Your task to perform on an android device: Open battery settings Image 0: 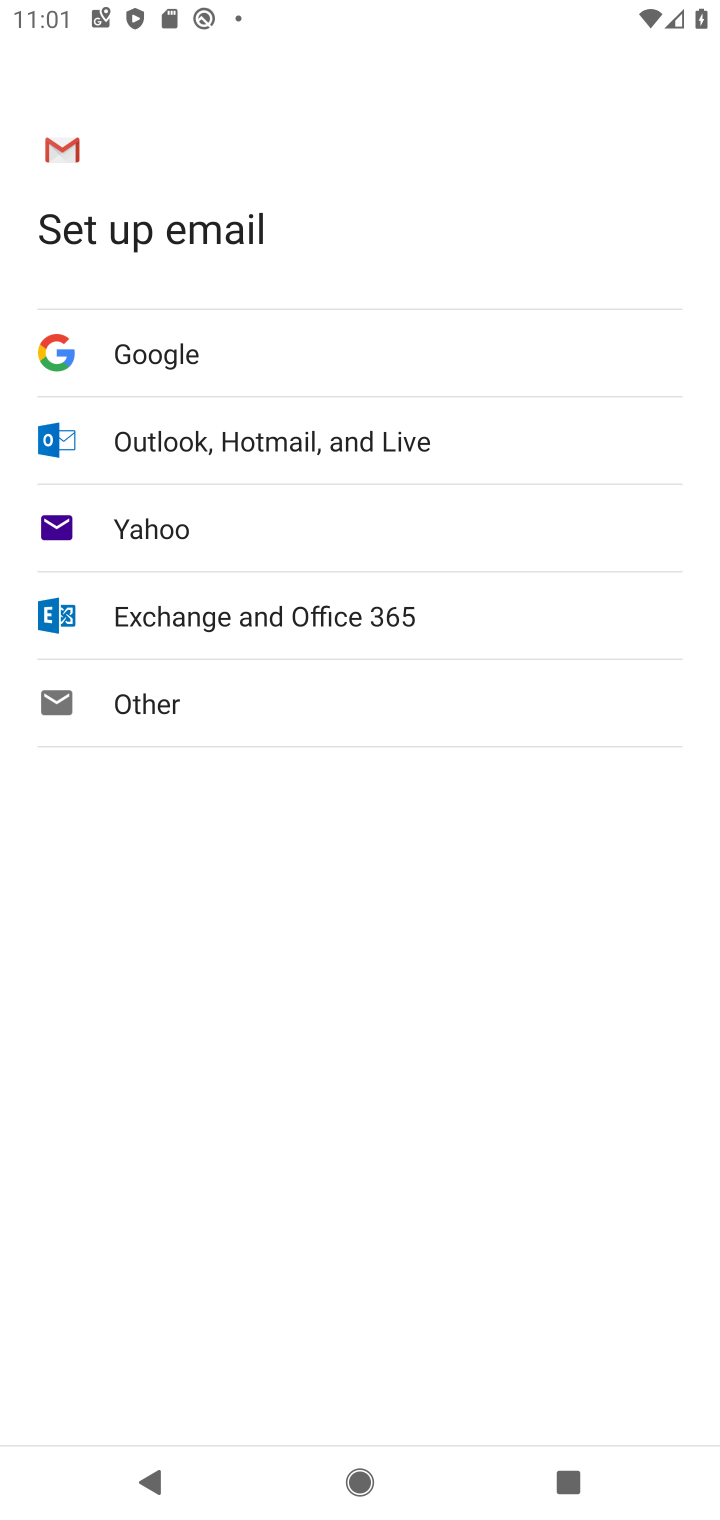
Step 0: press back button
Your task to perform on an android device: Open battery settings Image 1: 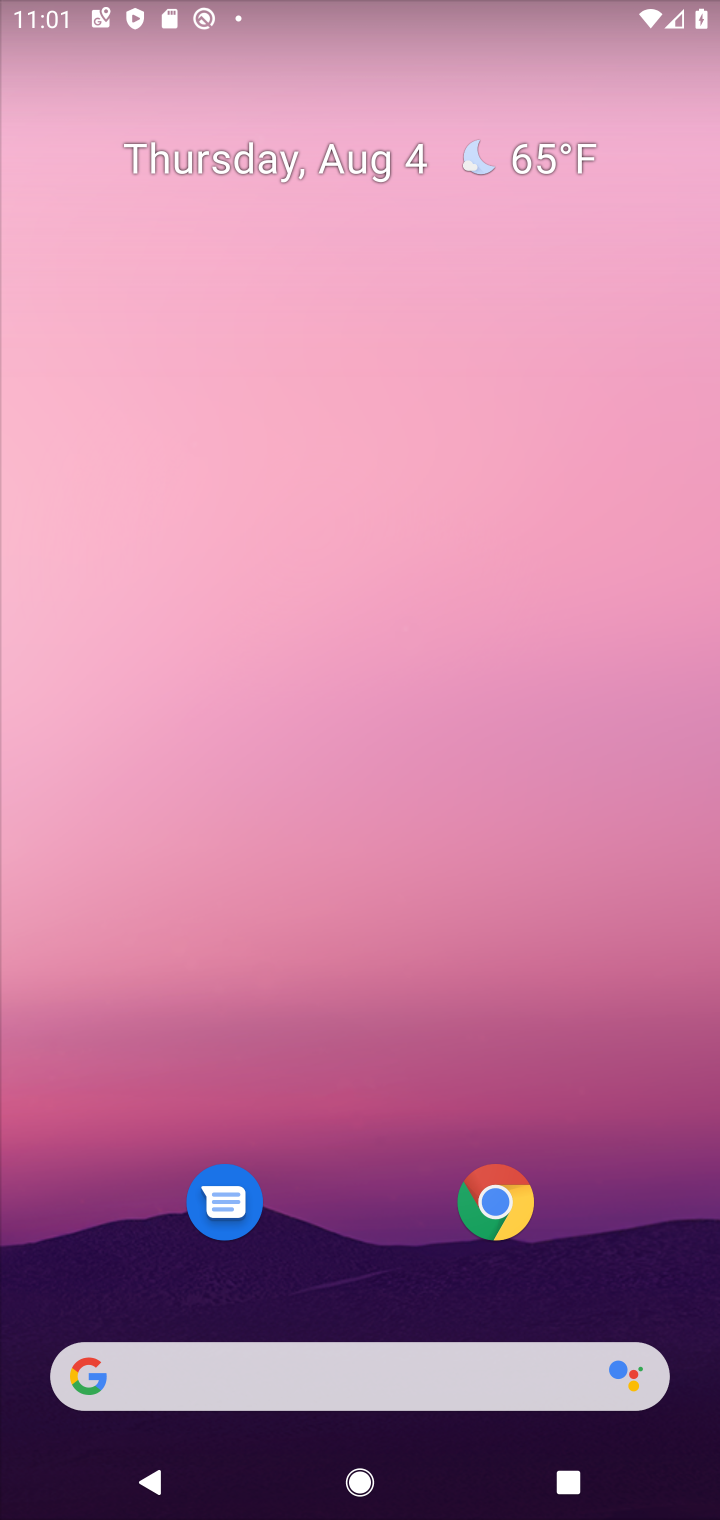
Step 1: drag from (331, 884) to (426, 5)
Your task to perform on an android device: Open battery settings Image 2: 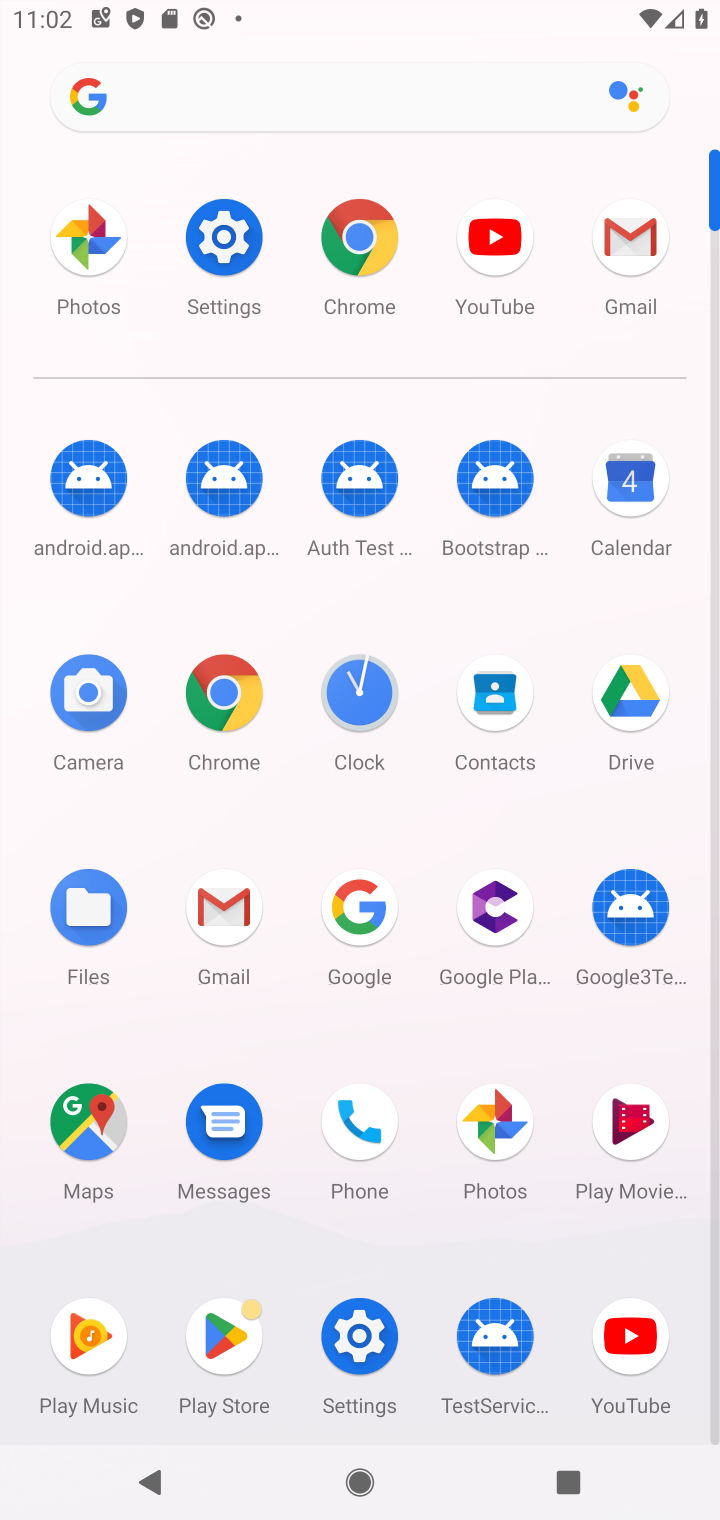
Step 2: click (240, 234)
Your task to perform on an android device: Open battery settings Image 3: 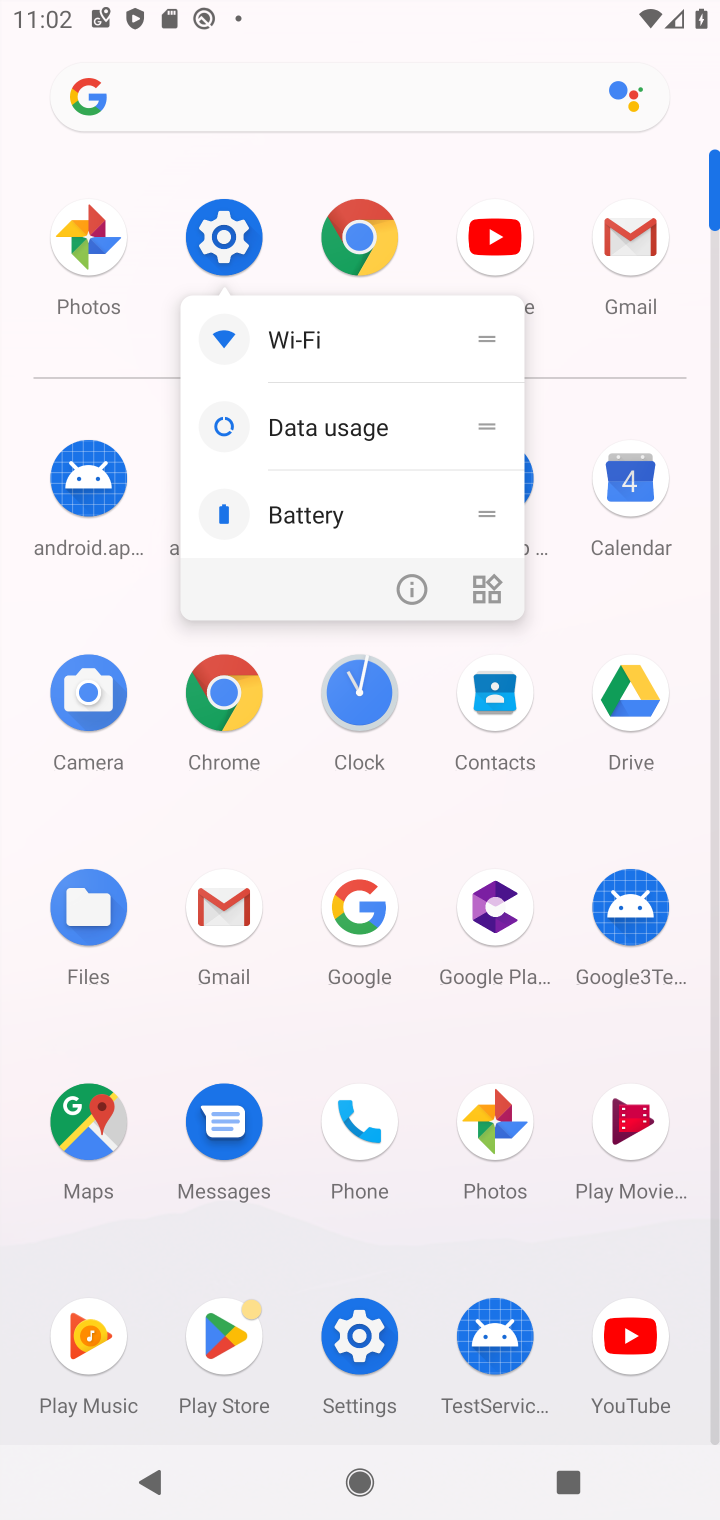
Step 3: click (227, 237)
Your task to perform on an android device: Open battery settings Image 4: 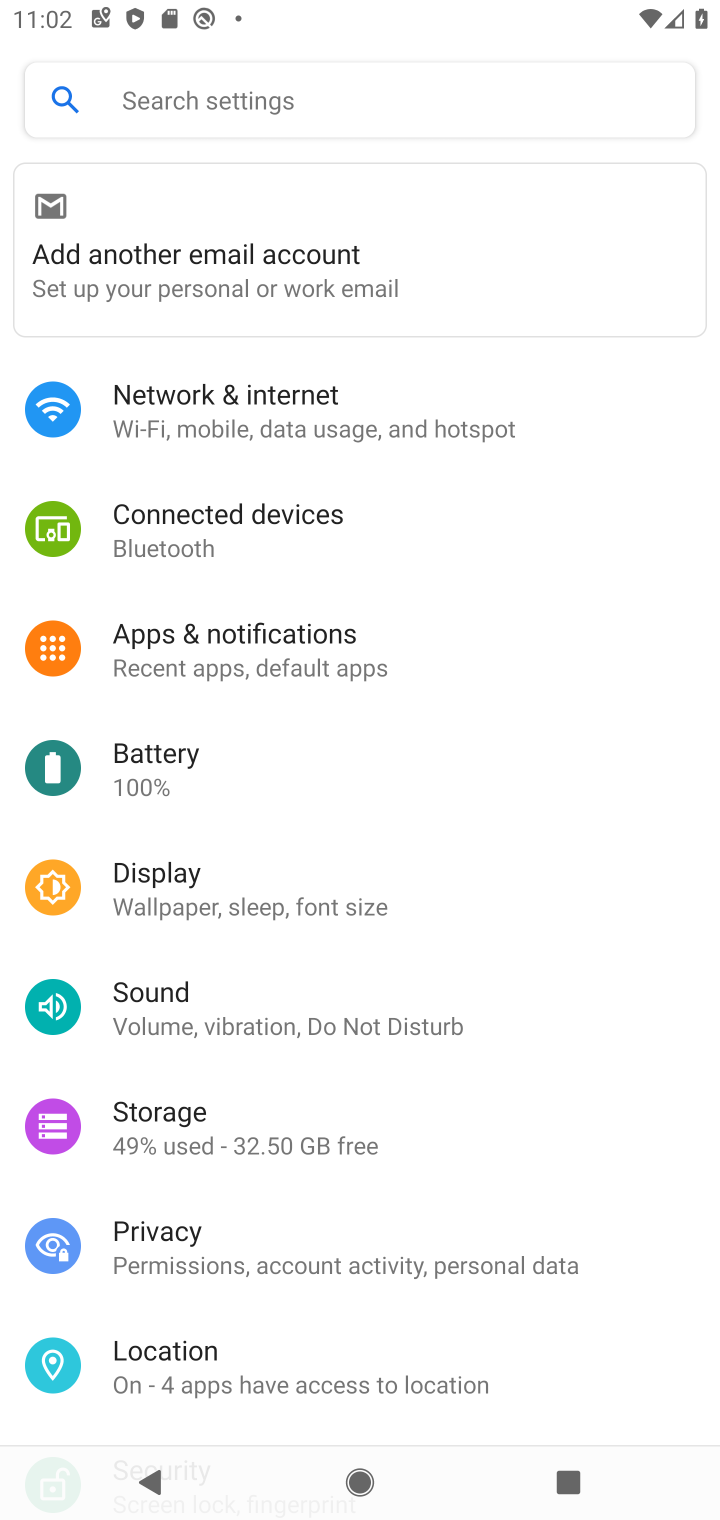
Step 4: click (208, 788)
Your task to perform on an android device: Open battery settings Image 5: 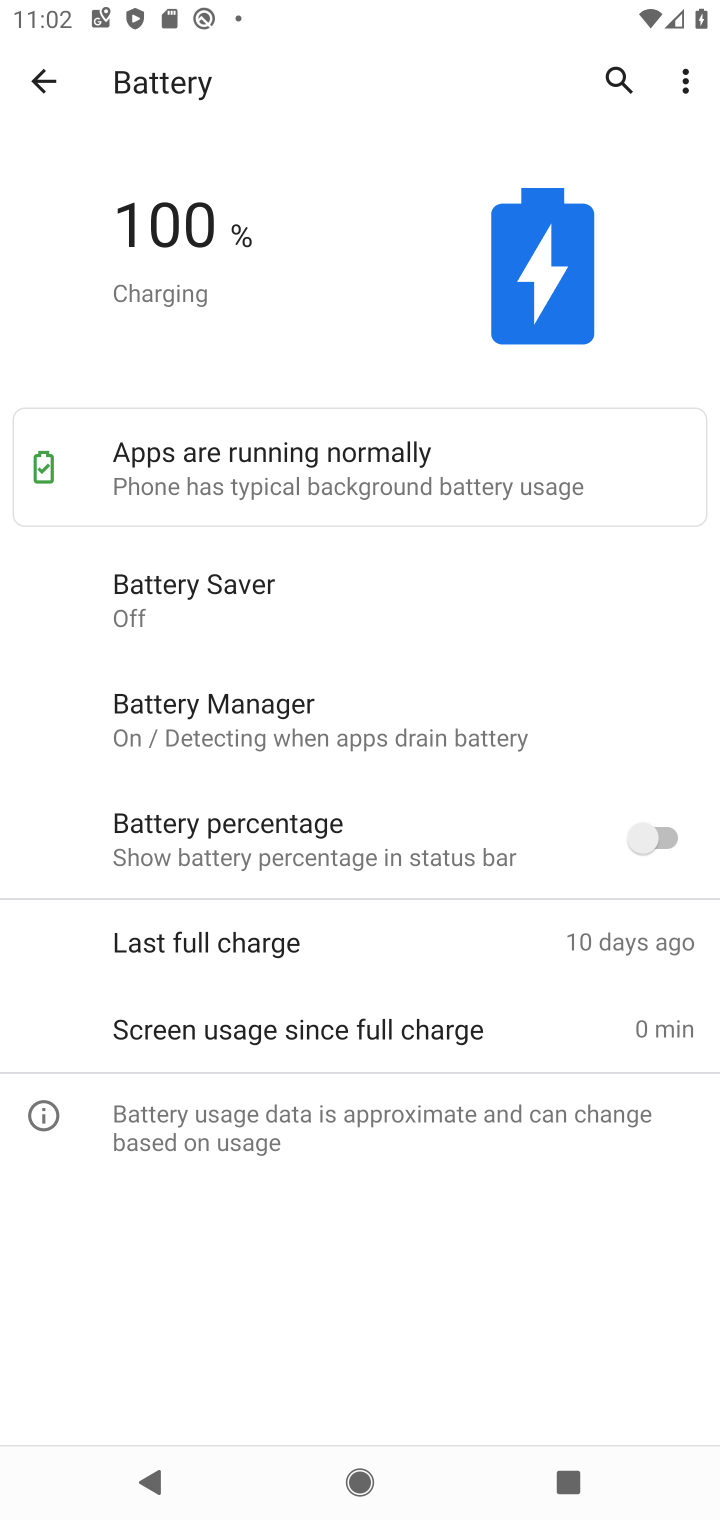
Step 5: task complete